Your task to perform on an android device: Open calendar and show me the first week of next month Image 0: 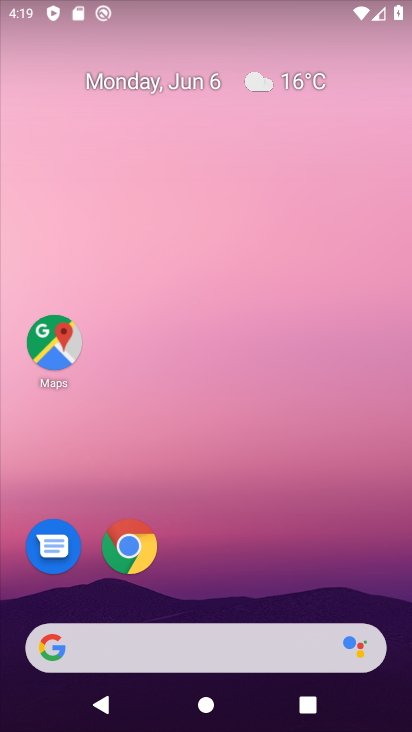
Step 0: drag from (251, 596) to (355, 186)
Your task to perform on an android device: Open calendar and show me the first week of next month Image 1: 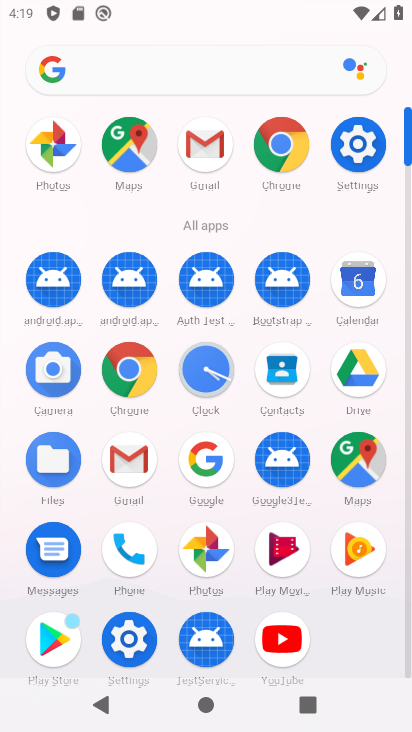
Step 1: click (363, 295)
Your task to perform on an android device: Open calendar and show me the first week of next month Image 2: 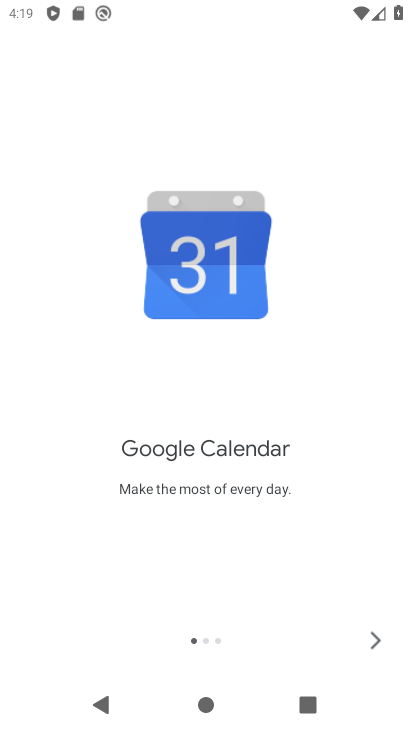
Step 2: click (381, 630)
Your task to perform on an android device: Open calendar and show me the first week of next month Image 3: 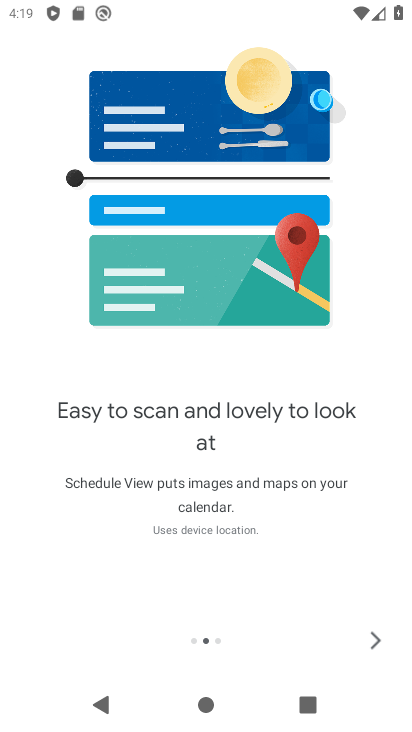
Step 3: click (369, 630)
Your task to perform on an android device: Open calendar and show me the first week of next month Image 4: 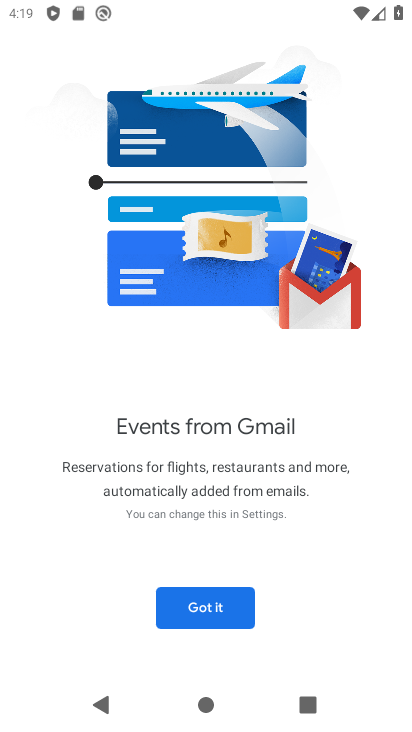
Step 4: click (205, 616)
Your task to perform on an android device: Open calendar and show me the first week of next month Image 5: 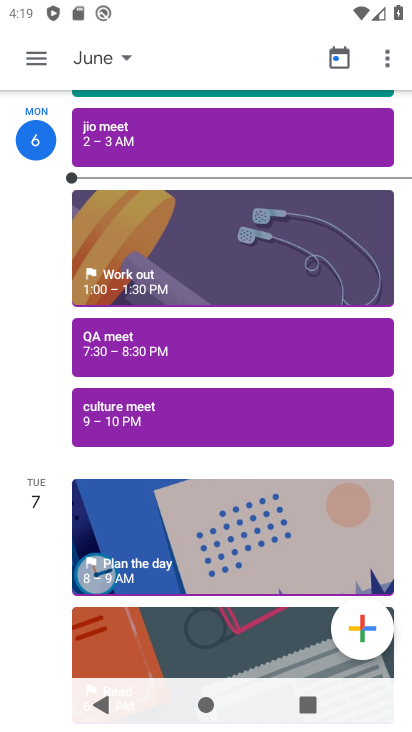
Step 5: click (37, 56)
Your task to perform on an android device: Open calendar and show me the first week of next month Image 6: 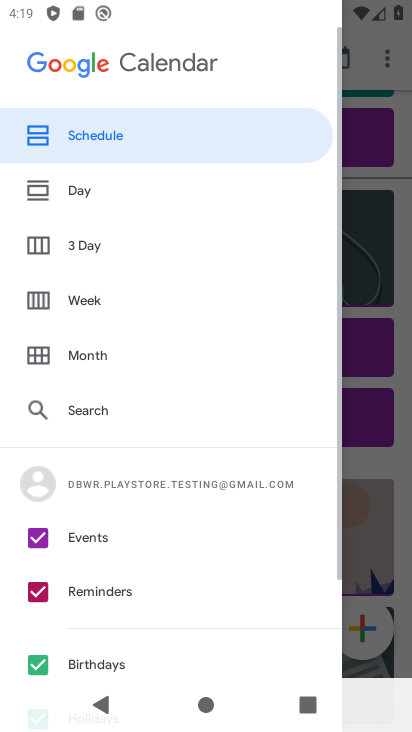
Step 6: click (90, 302)
Your task to perform on an android device: Open calendar and show me the first week of next month Image 7: 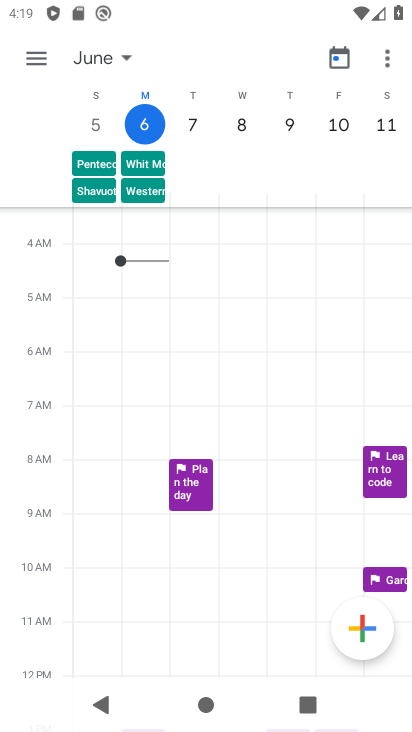
Step 7: task complete